Your task to perform on an android device: Do I have any events tomorrow? Image 0: 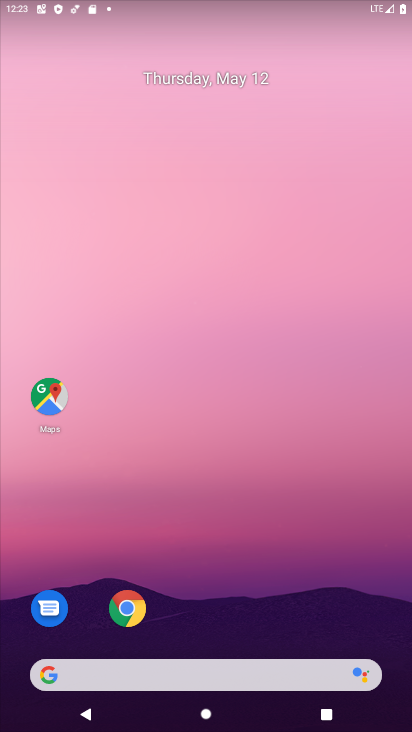
Step 0: drag from (344, 602) to (310, 12)
Your task to perform on an android device: Do I have any events tomorrow? Image 1: 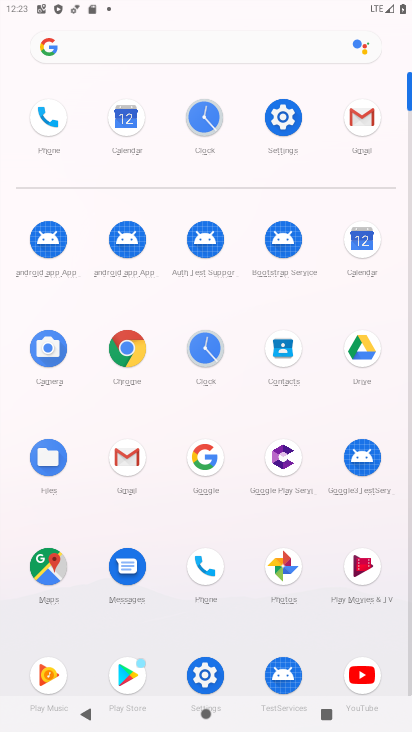
Step 1: click (123, 122)
Your task to perform on an android device: Do I have any events tomorrow? Image 2: 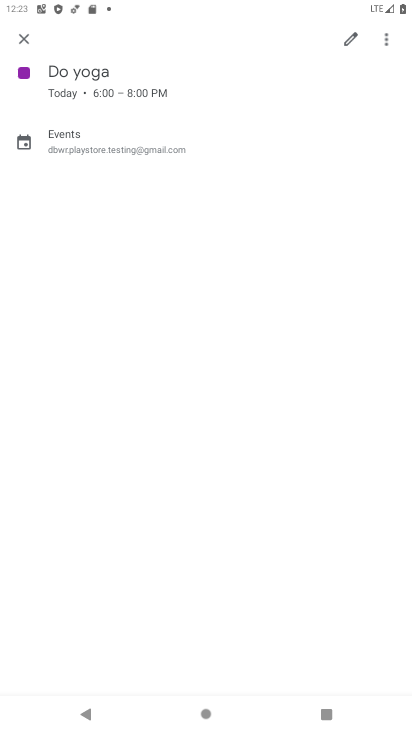
Step 2: click (32, 43)
Your task to perform on an android device: Do I have any events tomorrow? Image 3: 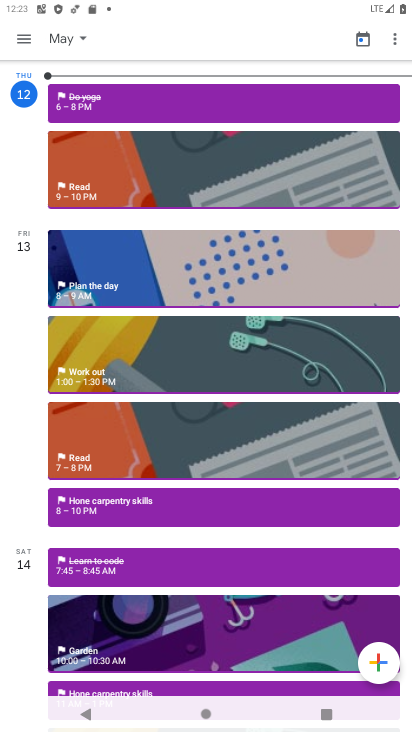
Step 3: click (152, 500)
Your task to perform on an android device: Do I have any events tomorrow? Image 4: 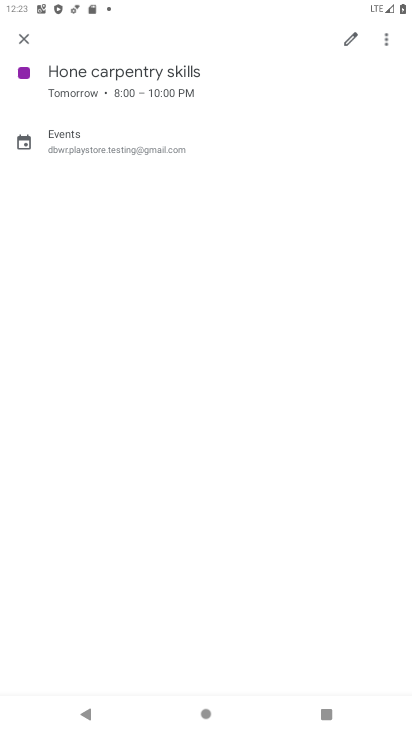
Step 4: task complete